Your task to perform on an android device: Go to eBay Image 0: 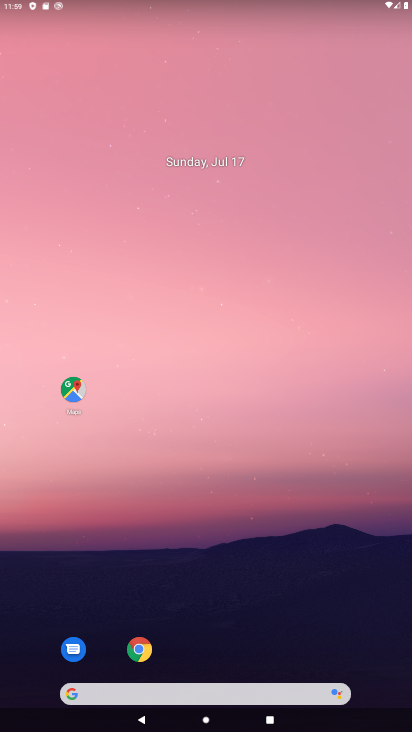
Step 0: click (148, 697)
Your task to perform on an android device: Go to eBay Image 1: 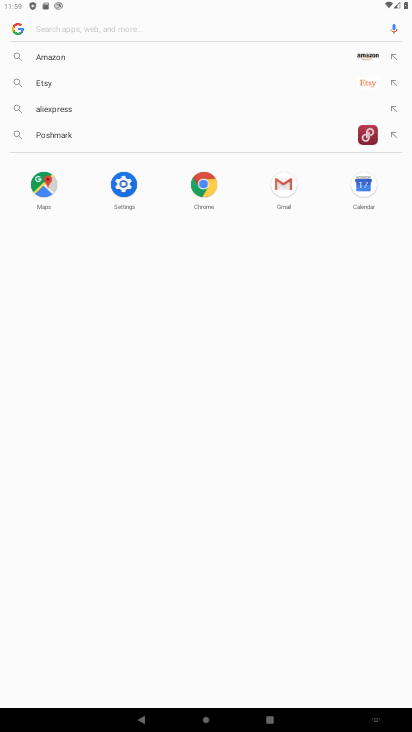
Step 1: type "eBay"
Your task to perform on an android device: Go to eBay Image 2: 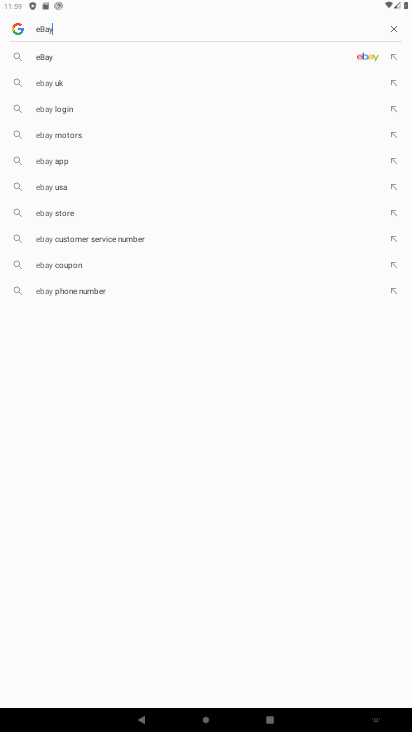
Step 2: type ""
Your task to perform on an android device: Go to eBay Image 3: 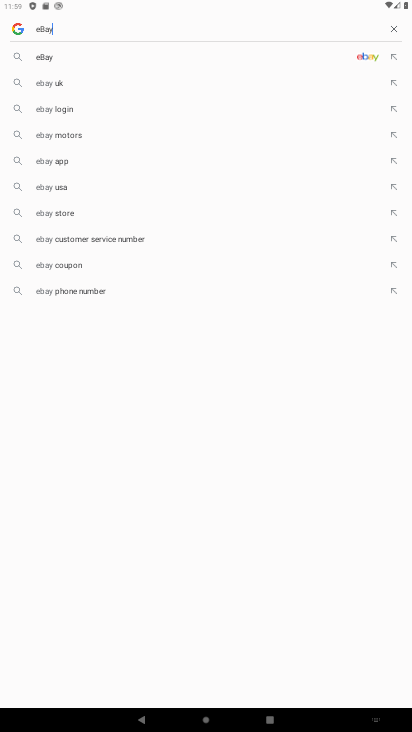
Step 3: type ""
Your task to perform on an android device: Go to eBay Image 4: 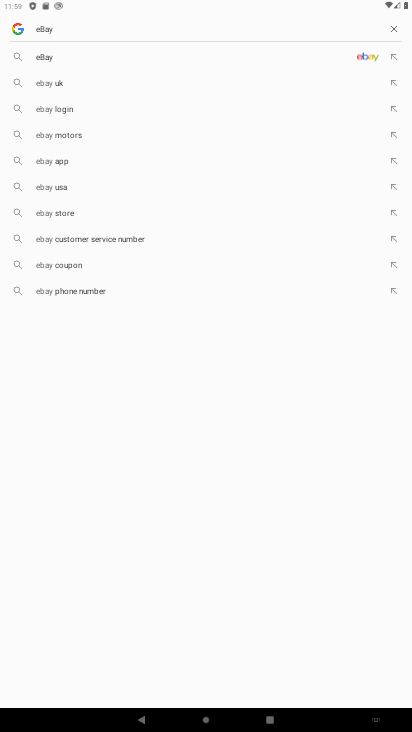
Step 4: type ""
Your task to perform on an android device: Go to eBay Image 5: 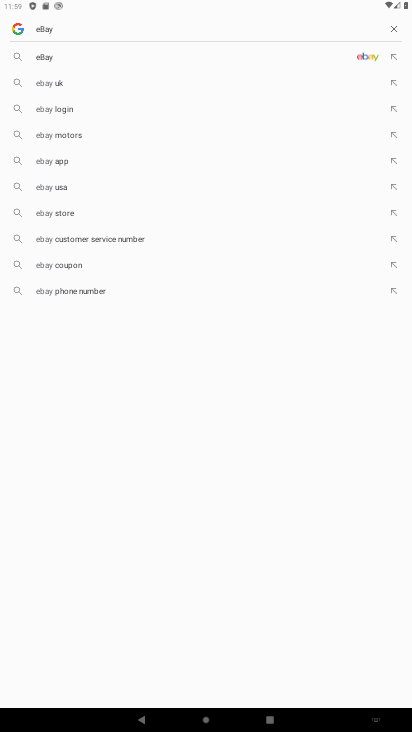
Step 5: click (53, 55)
Your task to perform on an android device: Go to eBay Image 6: 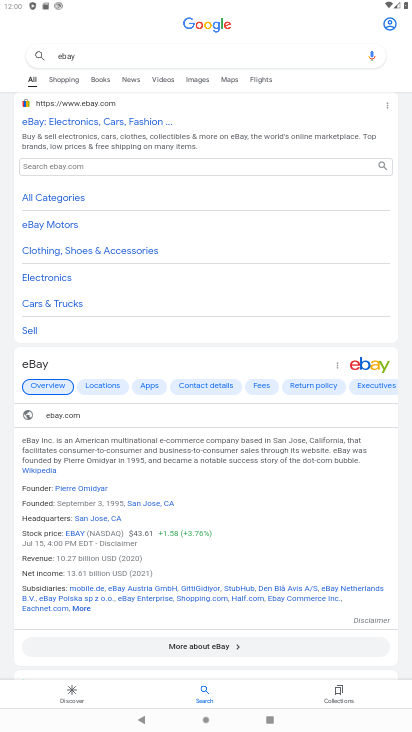
Step 6: task complete